Your task to perform on an android device: Open Google Chrome and click the shortcut for Amazon.com Image 0: 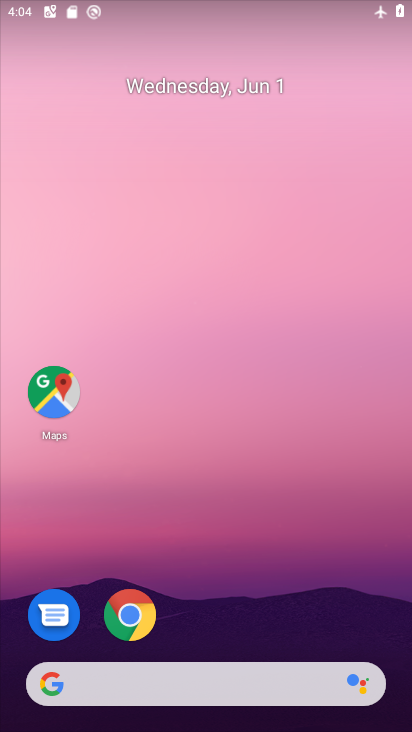
Step 0: click (112, 612)
Your task to perform on an android device: Open Google Chrome and click the shortcut for Amazon.com Image 1: 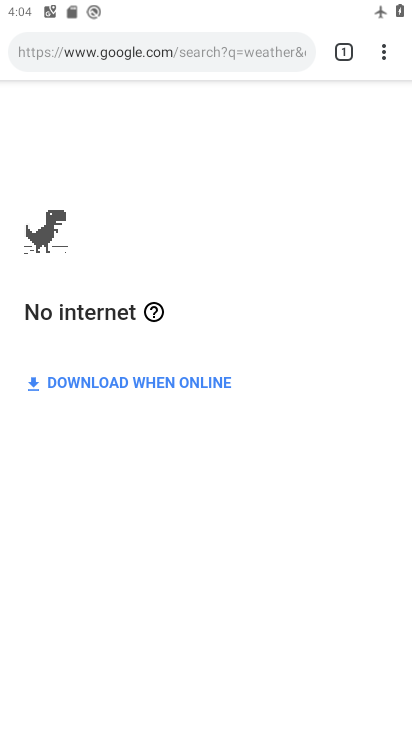
Step 1: drag from (379, 49) to (269, 103)
Your task to perform on an android device: Open Google Chrome and click the shortcut for Amazon.com Image 2: 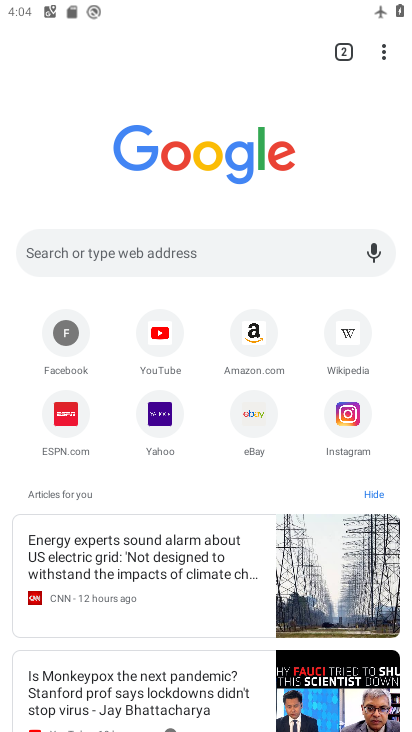
Step 2: click (263, 333)
Your task to perform on an android device: Open Google Chrome and click the shortcut for Amazon.com Image 3: 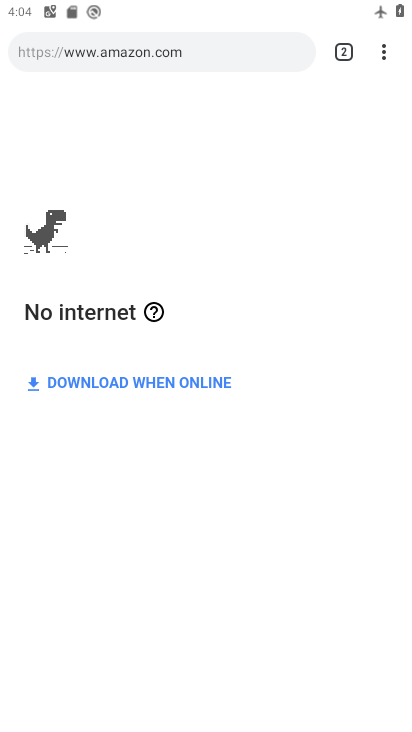
Step 3: task complete